Your task to perform on an android device: refresh tabs in the chrome app Image 0: 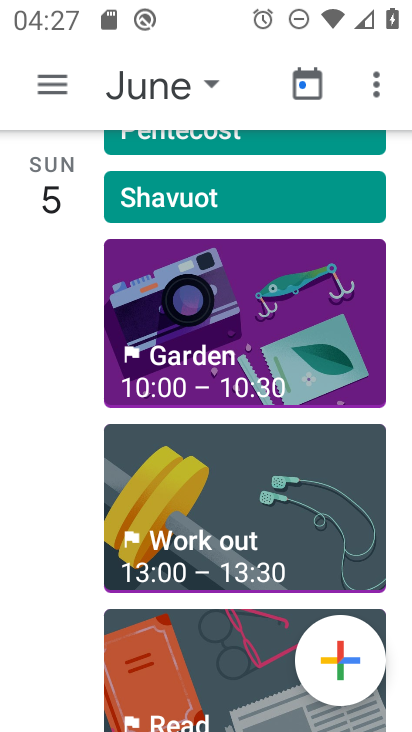
Step 0: press home button
Your task to perform on an android device: refresh tabs in the chrome app Image 1: 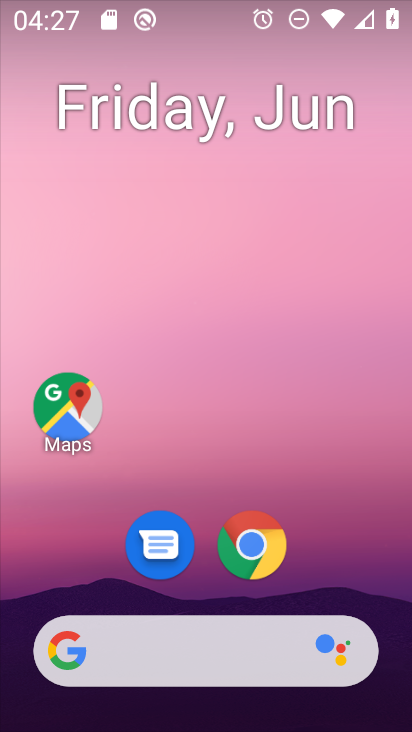
Step 1: click (259, 549)
Your task to perform on an android device: refresh tabs in the chrome app Image 2: 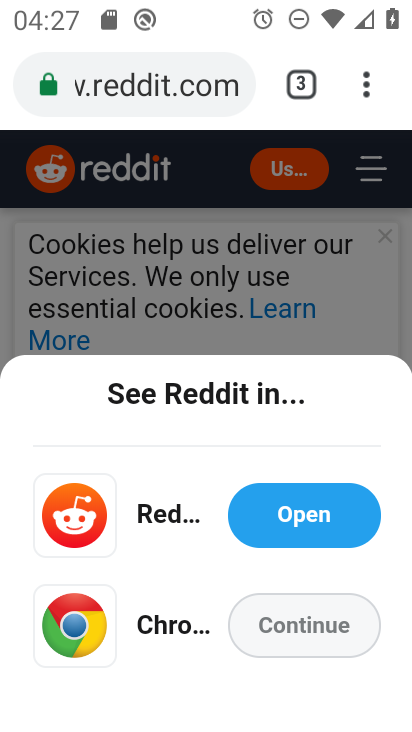
Step 2: click (365, 77)
Your task to perform on an android device: refresh tabs in the chrome app Image 3: 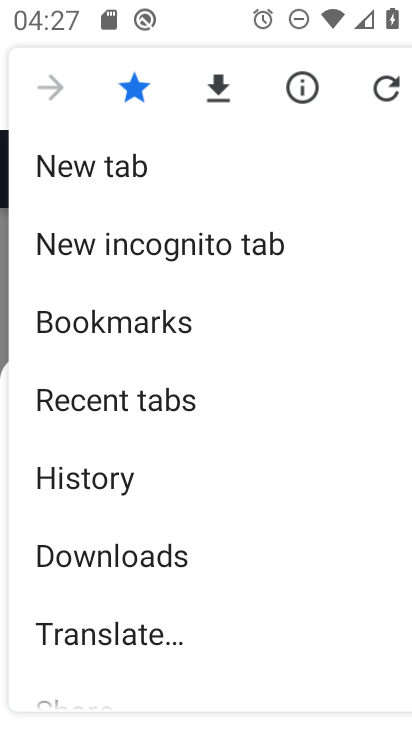
Step 3: click (378, 86)
Your task to perform on an android device: refresh tabs in the chrome app Image 4: 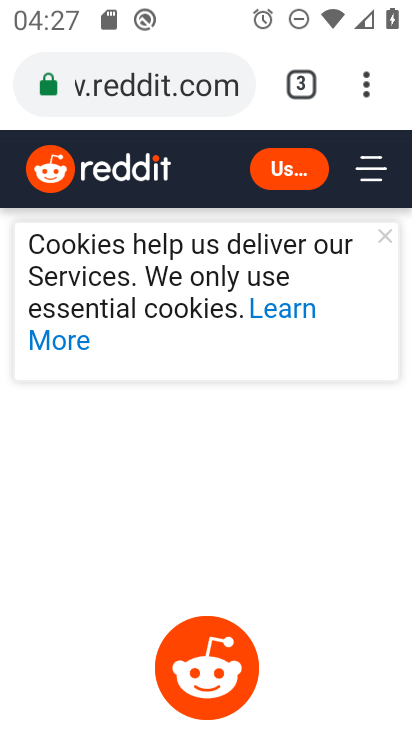
Step 4: click (320, 88)
Your task to perform on an android device: refresh tabs in the chrome app Image 5: 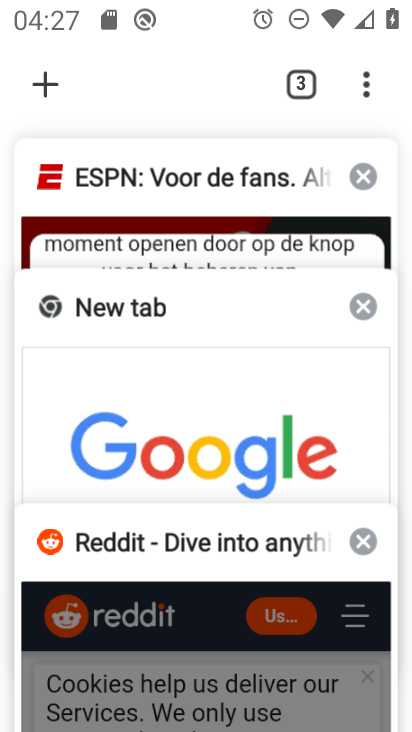
Step 5: click (174, 352)
Your task to perform on an android device: refresh tabs in the chrome app Image 6: 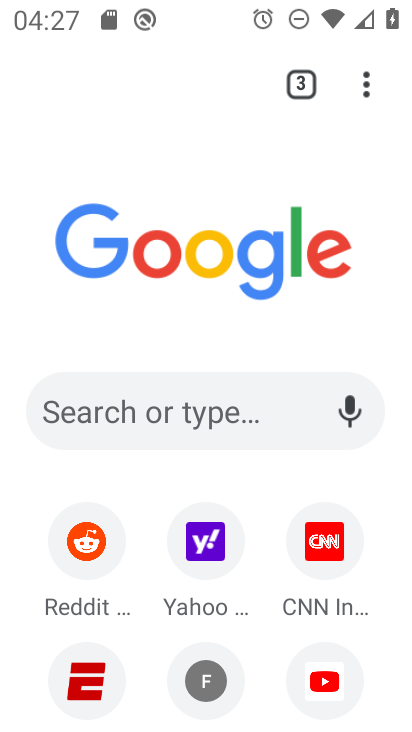
Step 6: click (356, 86)
Your task to perform on an android device: refresh tabs in the chrome app Image 7: 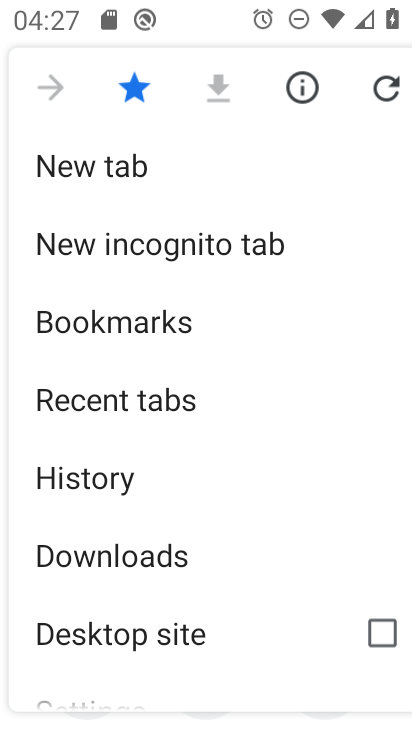
Step 7: click (384, 103)
Your task to perform on an android device: refresh tabs in the chrome app Image 8: 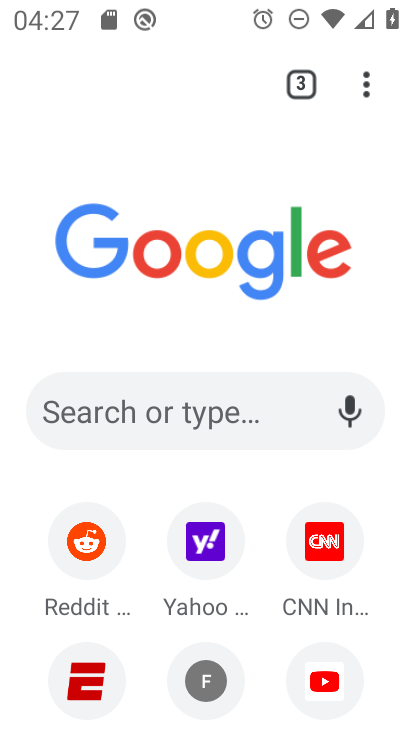
Step 8: click (311, 80)
Your task to perform on an android device: refresh tabs in the chrome app Image 9: 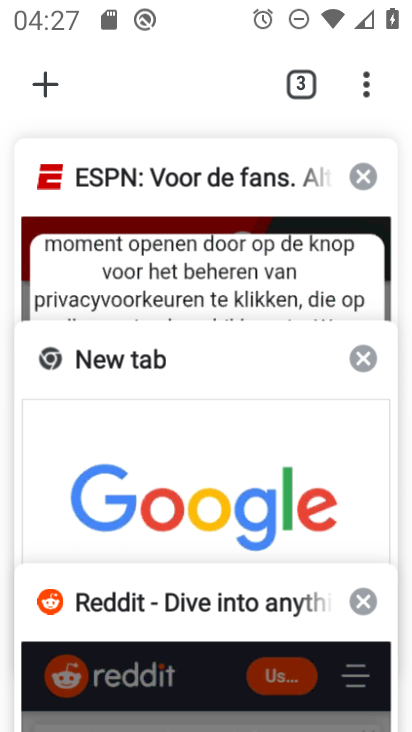
Step 9: click (168, 172)
Your task to perform on an android device: refresh tabs in the chrome app Image 10: 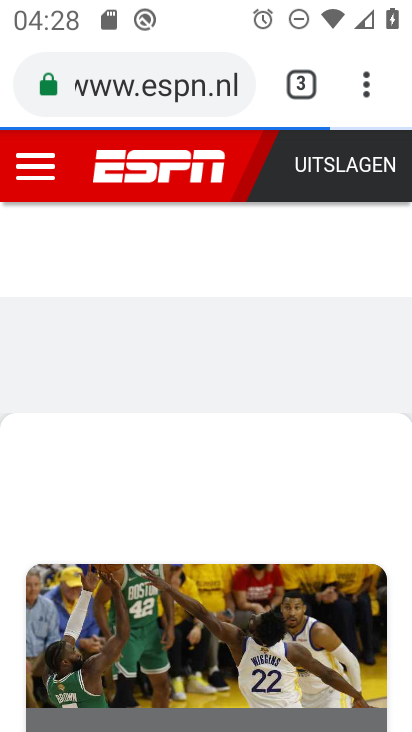
Step 10: click (376, 95)
Your task to perform on an android device: refresh tabs in the chrome app Image 11: 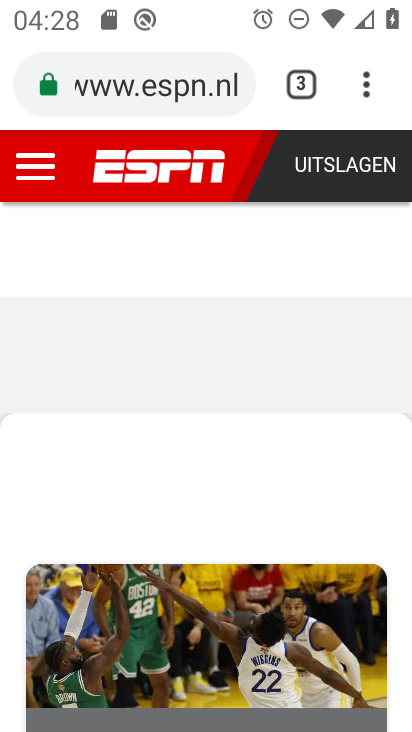
Step 11: click (349, 102)
Your task to perform on an android device: refresh tabs in the chrome app Image 12: 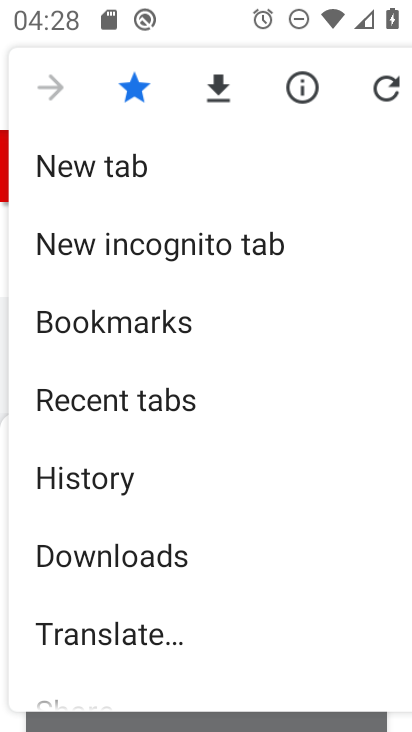
Step 12: click (377, 94)
Your task to perform on an android device: refresh tabs in the chrome app Image 13: 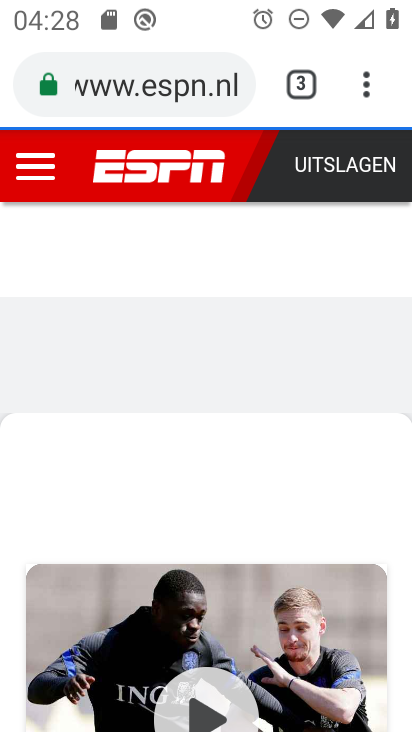
Step 13: task complete